Your task to perform on an android device: Show me productivity apps on the Play Store Image 0: 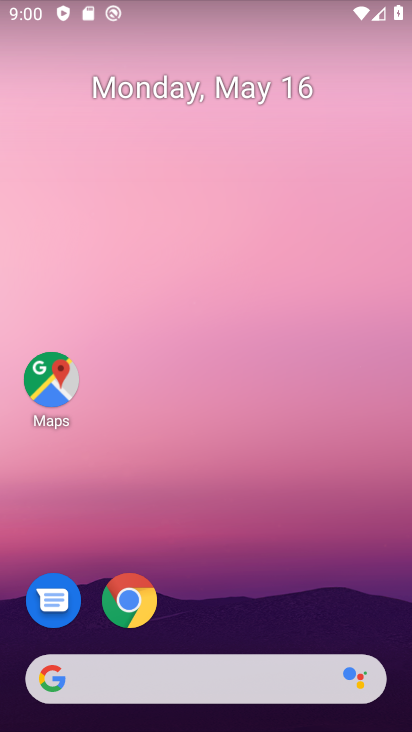
Step 0: click (132, 605)
Your task to perform on an android device: Show me productivity apps on the Play Store Image 1: 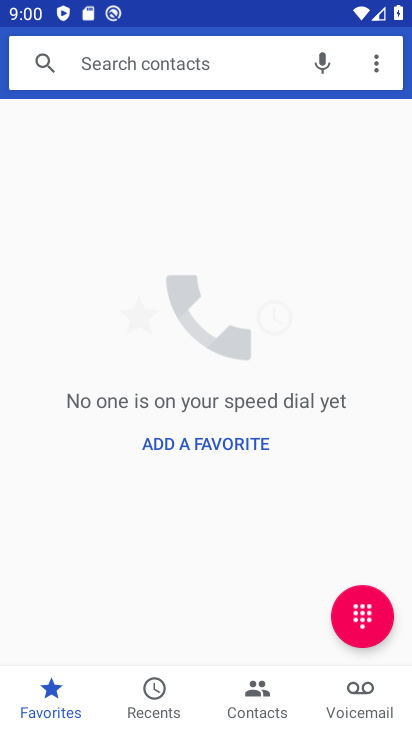
Step 1: press home button
Your task to perform on an android device: Show me productivity apps on the Play Store Image 2: 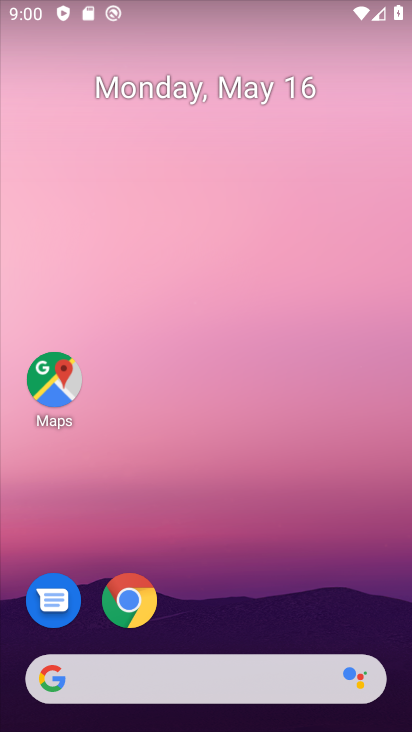
Step 2: click (132, 596)
Your task to perform on an android device: Show me productivity apps on the Play Store Image 3: 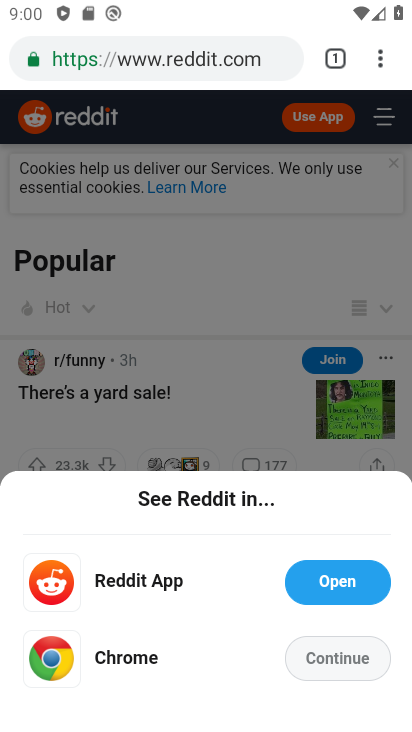
Step 3: press back button
Your task to perform on an android device: Show me productivity apps on the Play Store Image 4: 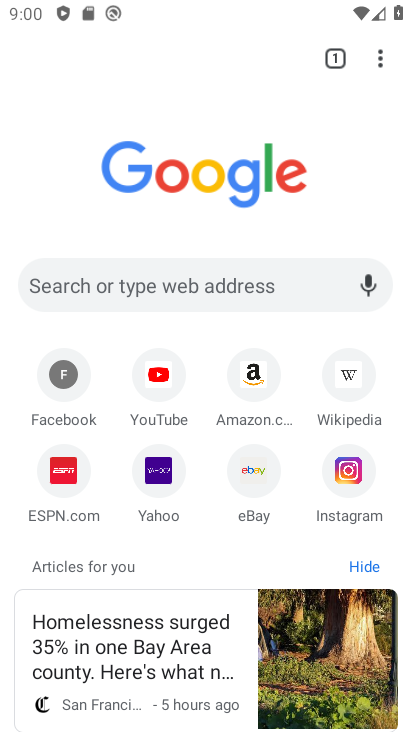
Step 4: press home button
Your task to perform on an android device: Show me productivity apps on the Play Store Image 5: 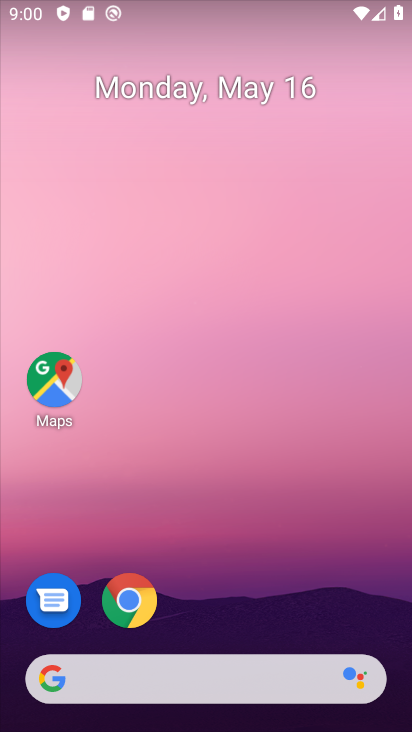
Step 5: drag from (204, 576) to (127, 220)
Your task to perform on an android device: Show me productivity apps on the Play Store Image 6: 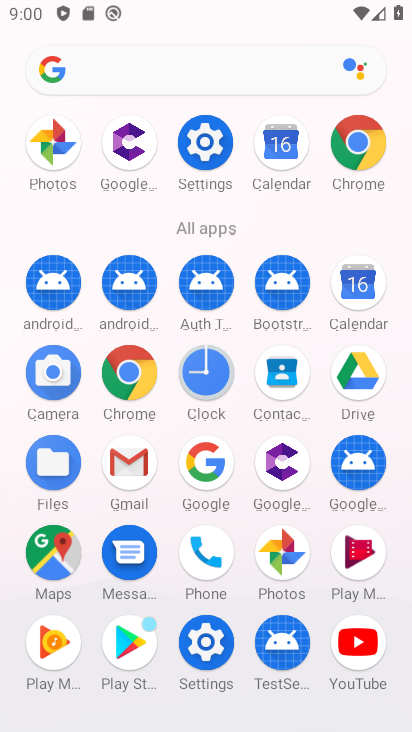
Step 6: click (118, 675)
Your task to perform on an android device: Show me productivity apps on the Play Store Image 7: 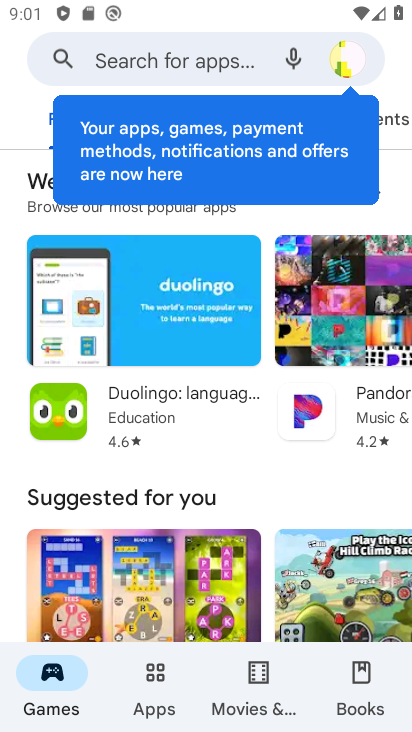
Step 7: click (156, 683)
Your task to perform on an android device: Show me productivity apps on the Play Store Image 8: 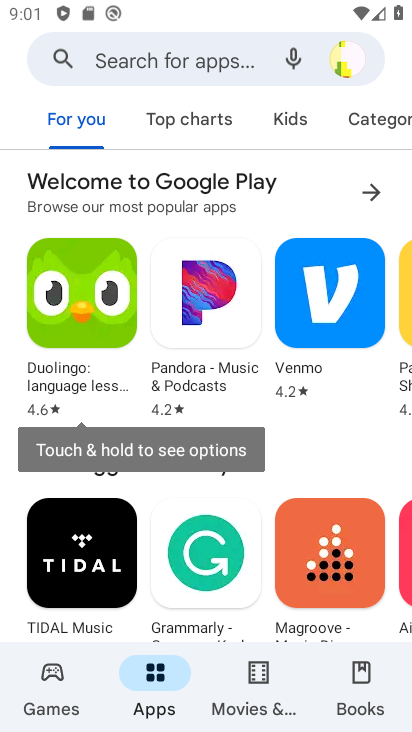
Step 8: click (379, 114)
Your task to perform on an android device: Show me productivity apps on the Play Store Image 9: 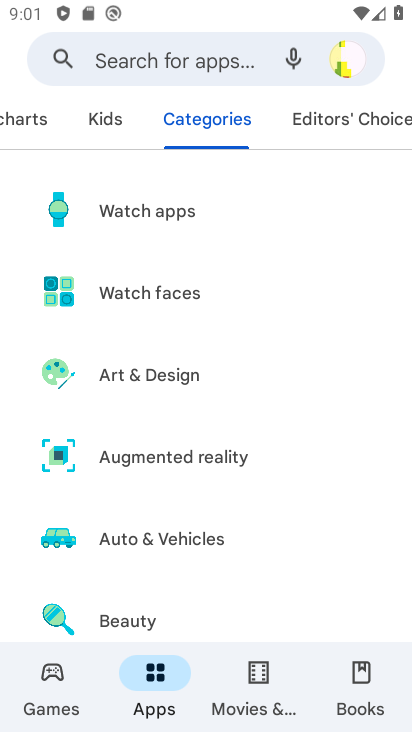
Step 9: drag from (205, 558) to (182, 259)
Your task to perform on an android device: Show me productivity apps on the Play Store Image 10: 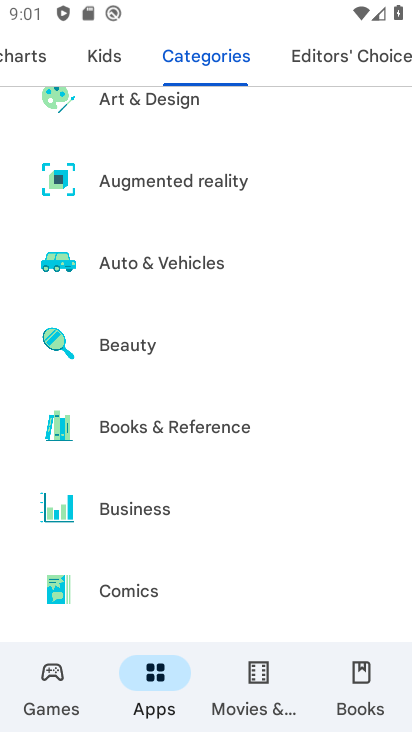
Step 10: drag from (206, 530) to (207, 194)
Your task to perform on an android device: Show me productivity apps on the Play Store Image 11: 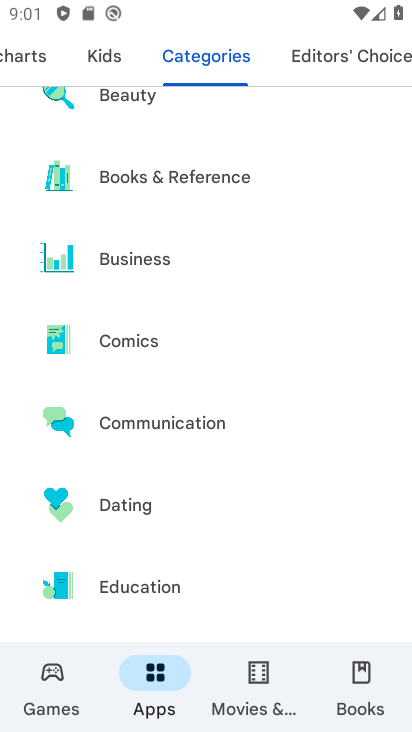
Step 11: drag from (168, 560) to (169, 234)
Your task to perform on an android device: Show me productivity apps on the Play Store Image 12: 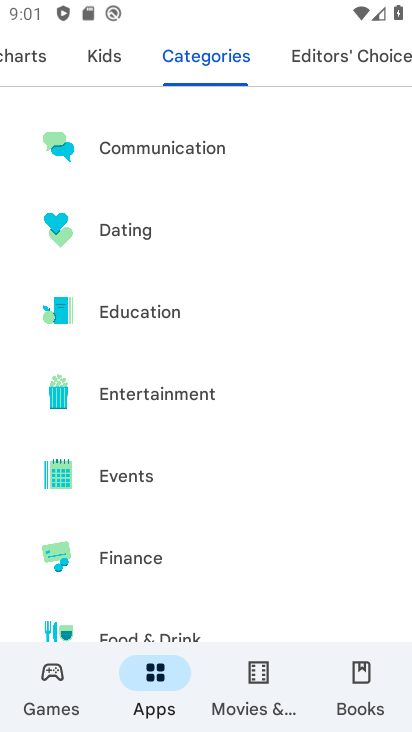
Step 12: drag from (190, 541) to (217, 241)
Your task to perform on an android device: Show me productivity apps on the Play Store Image 13: 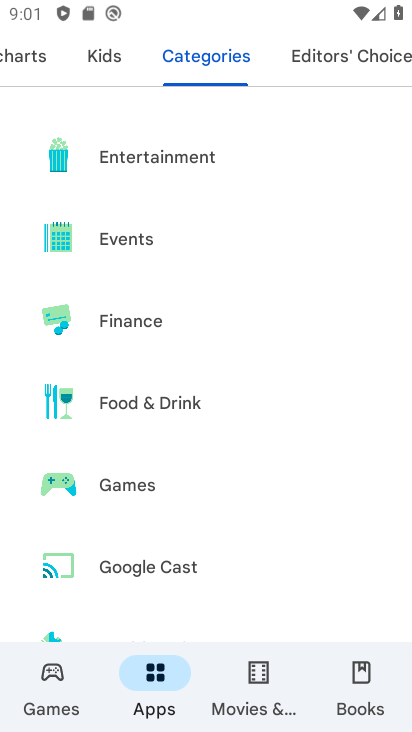
Step 13: drag from (175, 540) to (179, 215)
Your task to perform on an android device: Show me productivity apps on the Play Store Image 14: 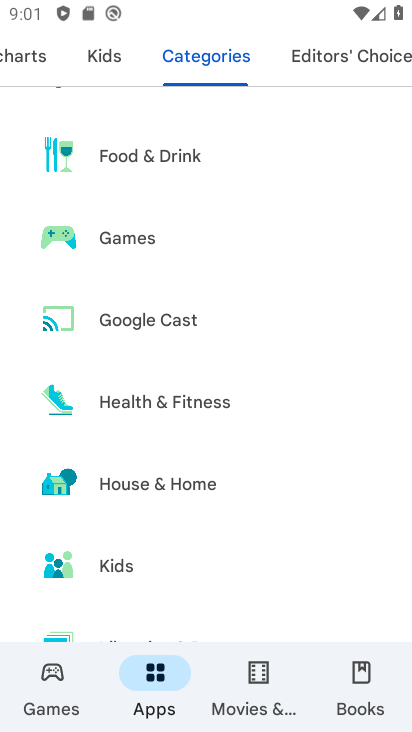
Step 14: drag from (223, 528) to (223, 112)
Your task to perform on an android device: Show me productivity apps on the Play Store Image 15: 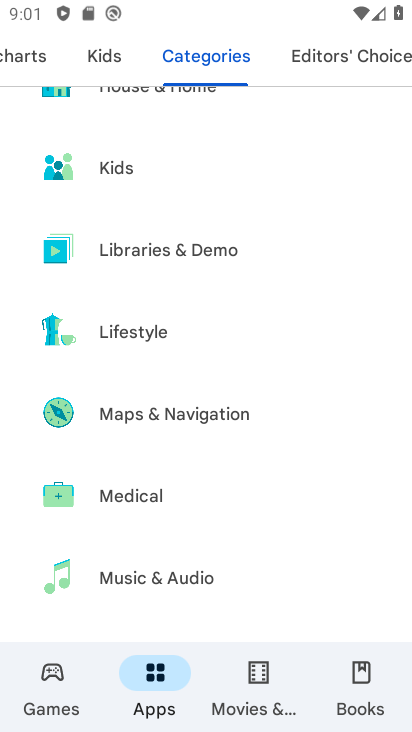
Step 15: drag from (180, 507) to (202, 141)
Your task to perform on an android device: Show me productivity apps on the Play Store Image 16: 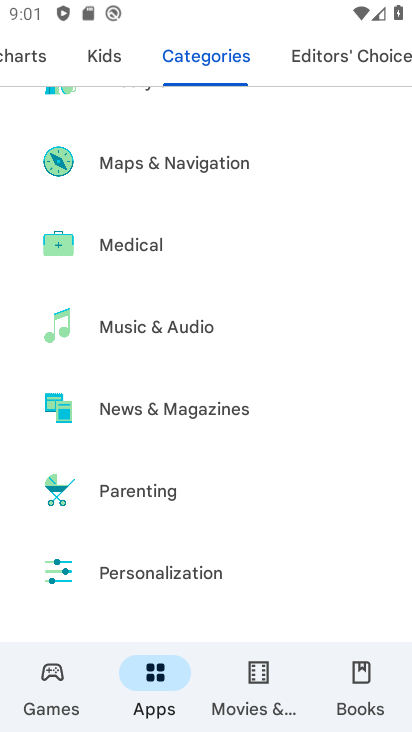
Step 16: drag from (162, 520) to (206, 289)
Your task to perform on an android device: Show me productivity apps on the Play Store Image 17: 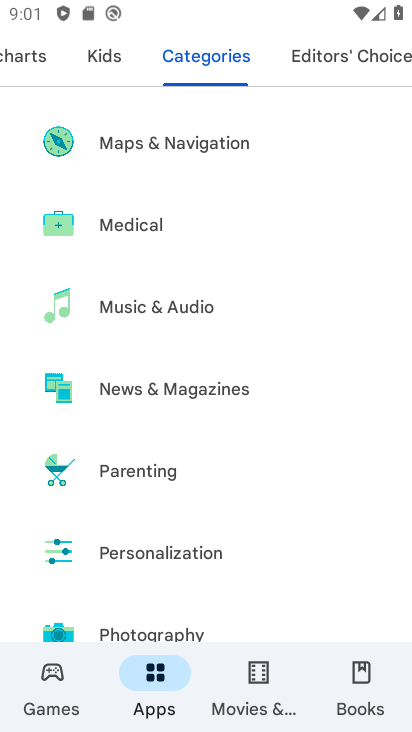
Step 17: drag from (242, 556) to (232, 166)
Your task to perform on an android device: Show me productivity apps on the Play Store Image 18: 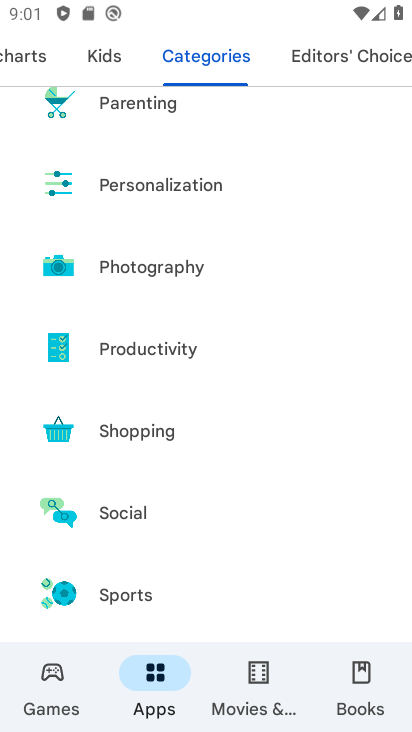
Step 18: click (130, 354)
Your task to perform on an android device: Show me productivity apps on the Play Store Image 19: 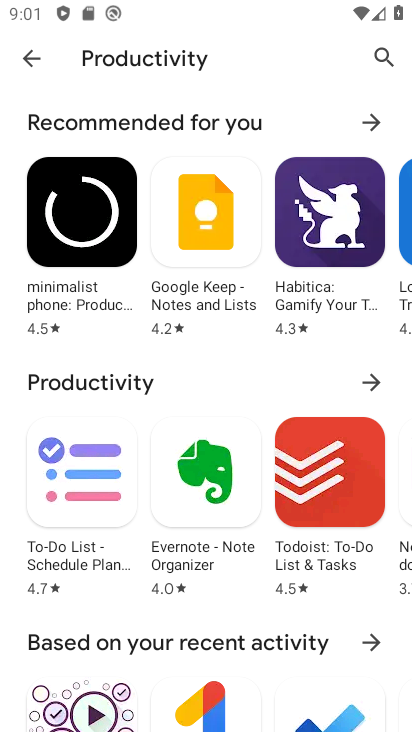
Step 19: task complete